Your task to perform on an android device: Go to Yahoo.com Image 0: 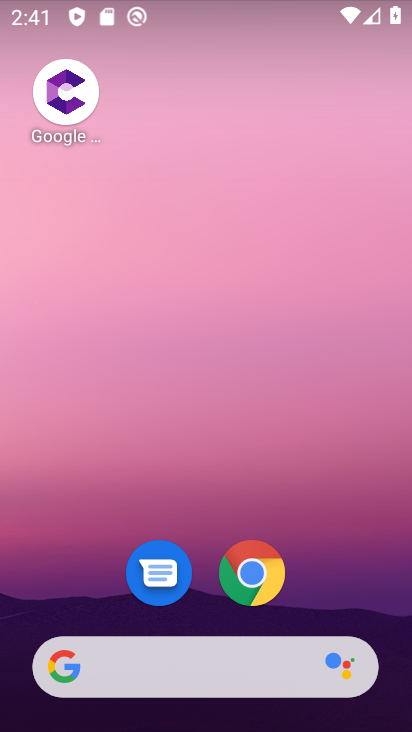
Step 0: click (238, 582)
Your task to perform on an android device: Go to Yahoo.com Image 1: 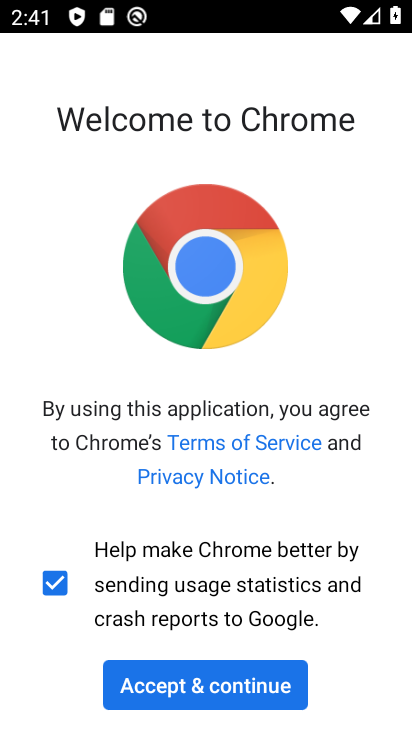
Step 1: click (152, 683)
Your task to perform on an android device: Go to Yahoo.com Image 2: 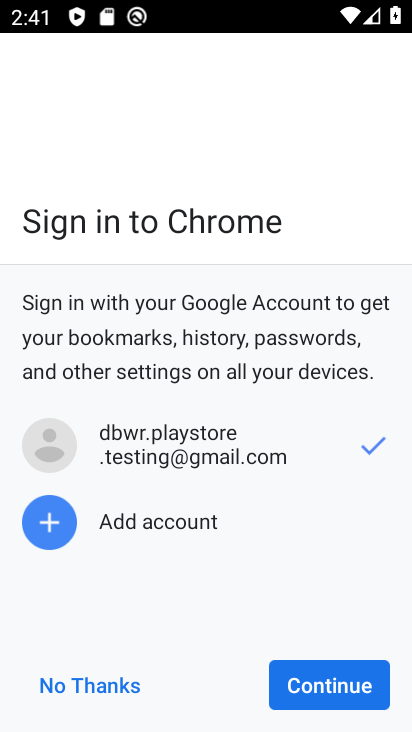
Step 2: click (292, 681)
Your task to perform on an android device: Go to Yahoo.com Image 3: 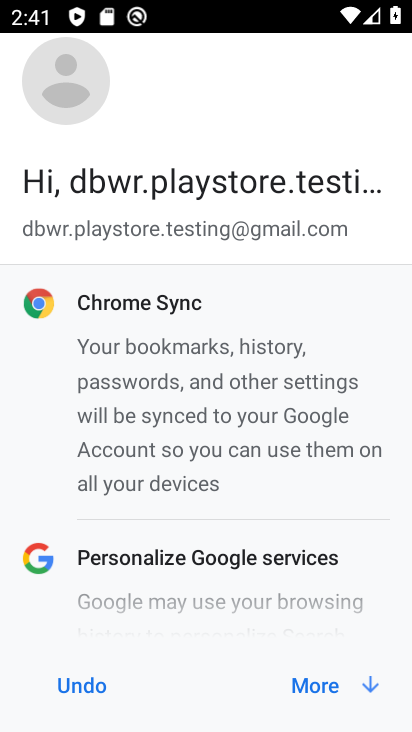
Step 3: click (292, 681)
Your task to perform on an android device: Go to Yahoo.com Image 4: 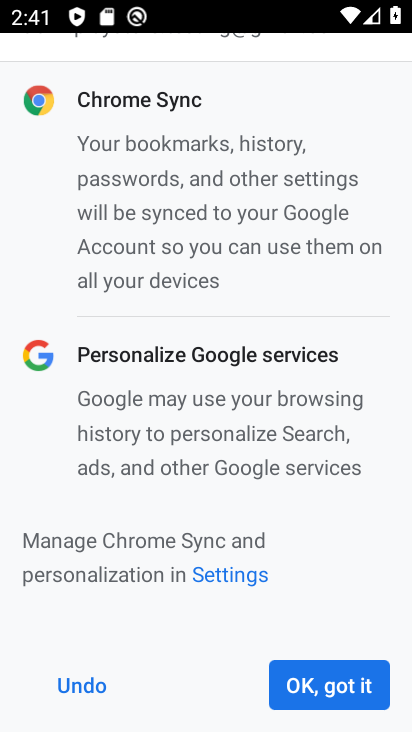
Step 4: click (292, 681)
Your task to perform on an android device: Go to Yahoo.com Image 5: 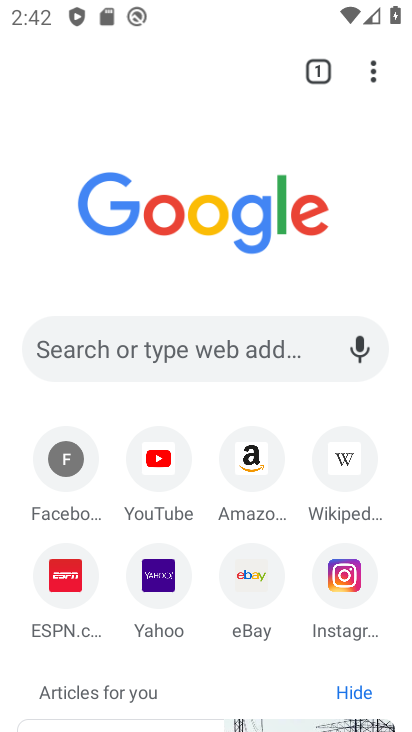
Step 5: click (161, 582)
Your task to perform on an android device: Go to Yahoo.com Image 6: 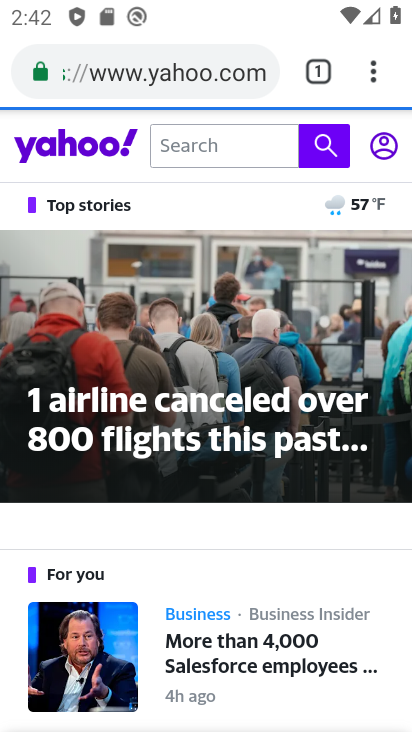
Step 6: task complete